Your task to perform on an android device: delete the emails in spam in the gmail app Image 0: 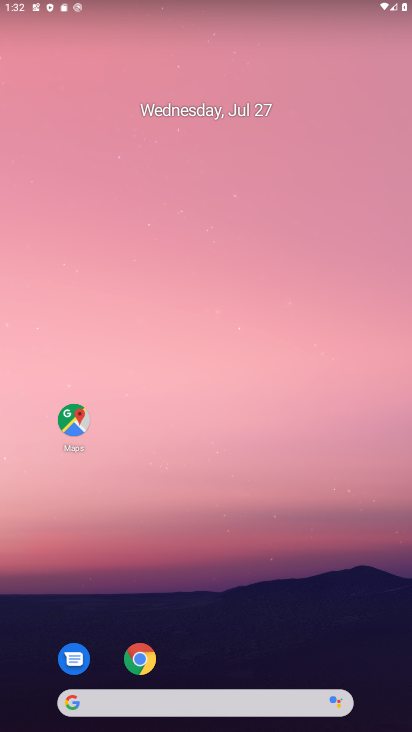
Step 0: drag from (260, 549) to (188, 107)
Your task to perform on an android device: delete the emails in spam in the gmail app Image 1: 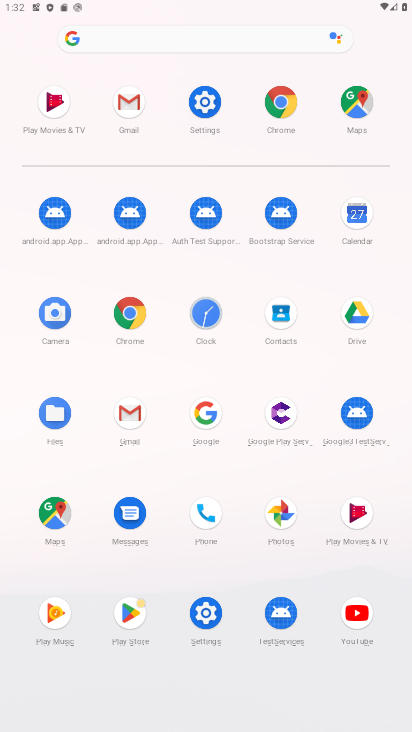
Step 1: click (132, 90)
Your task to perform on an android device: delete the emails in spam in the gmail app Image 2: 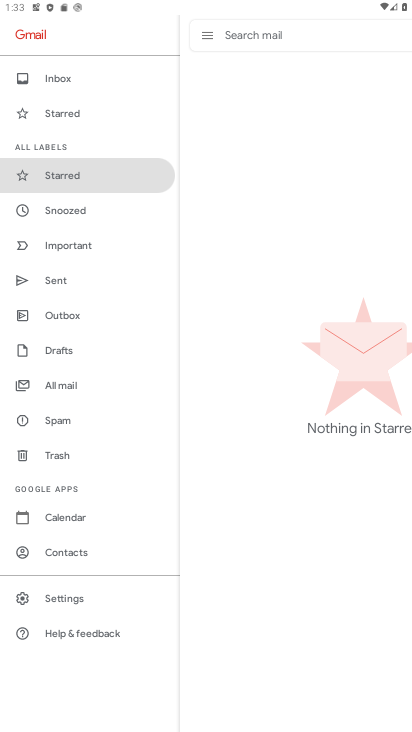
Step 2: click (60, 423)
Your task to perform on an android device: delete the emails in spam in the gmail app Image 3: 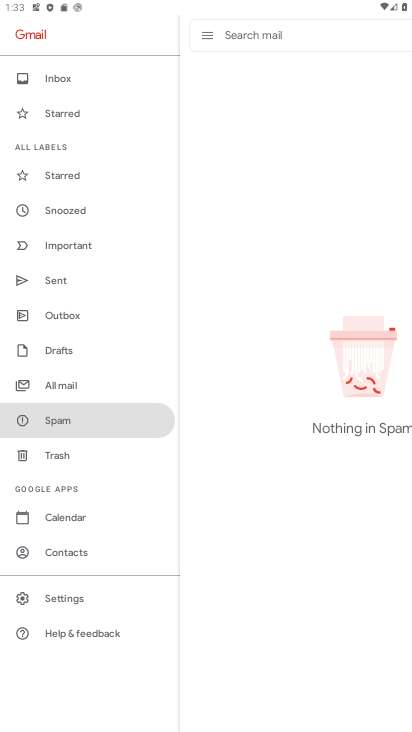
Step 3: task complete